Your task to perform on an android device: show emergency info Image 0: 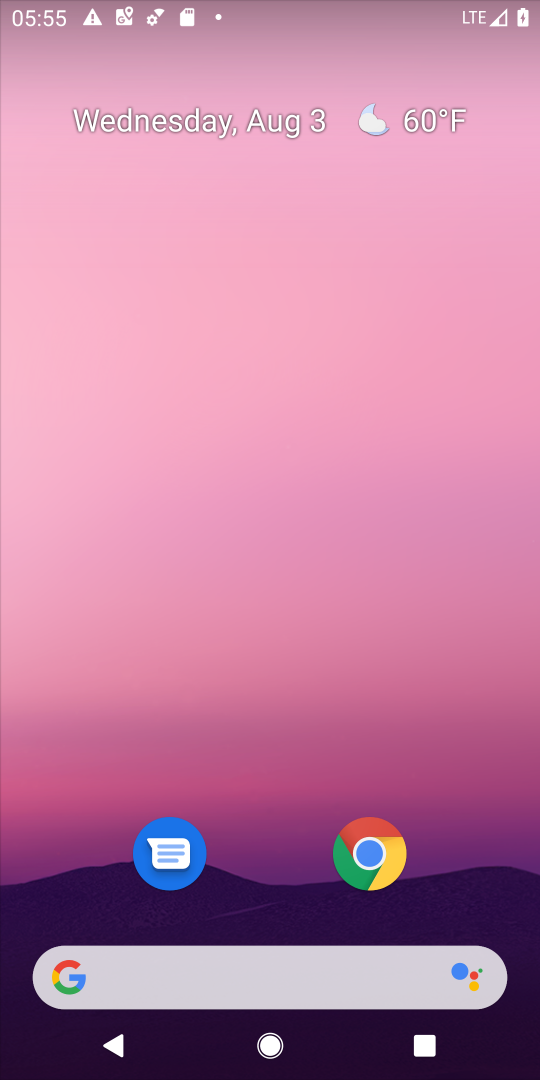
Step 0: drag from (334, 476) to (386, 25)
Your task to perform on an android device: show emergency info Image 1: 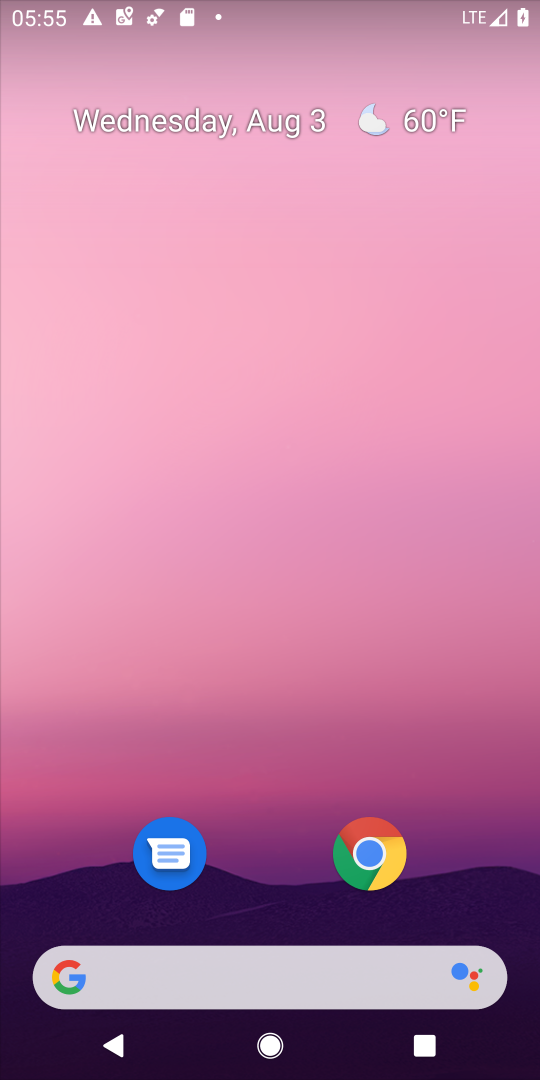
Step 1: drag from (249, 927) to (254, 29)
Your task to perform on an android device: show emergency info Image 2: 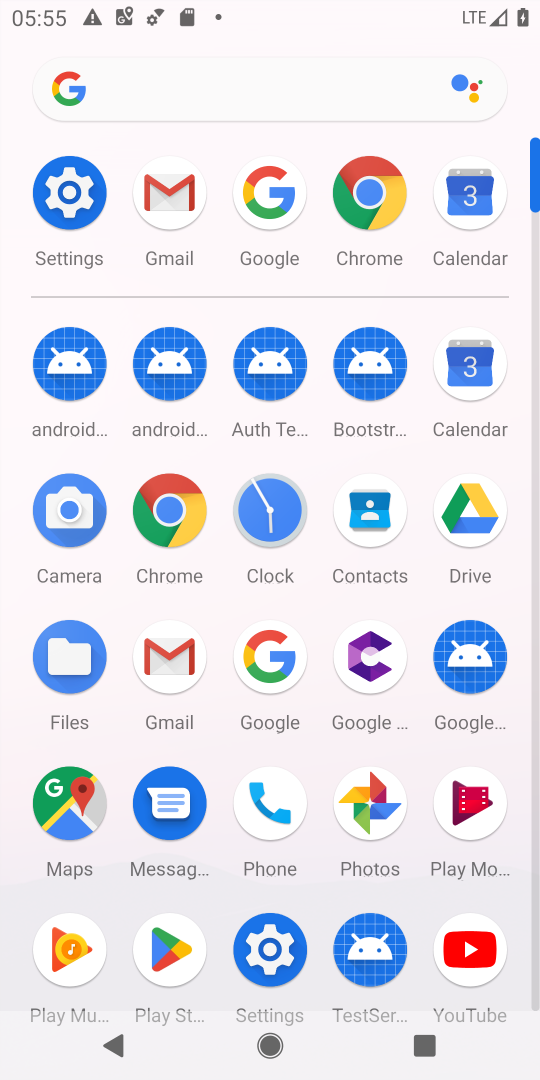
Step 2: click (76, 183)
Your task to perform on an android device: show emergency info Image 3: 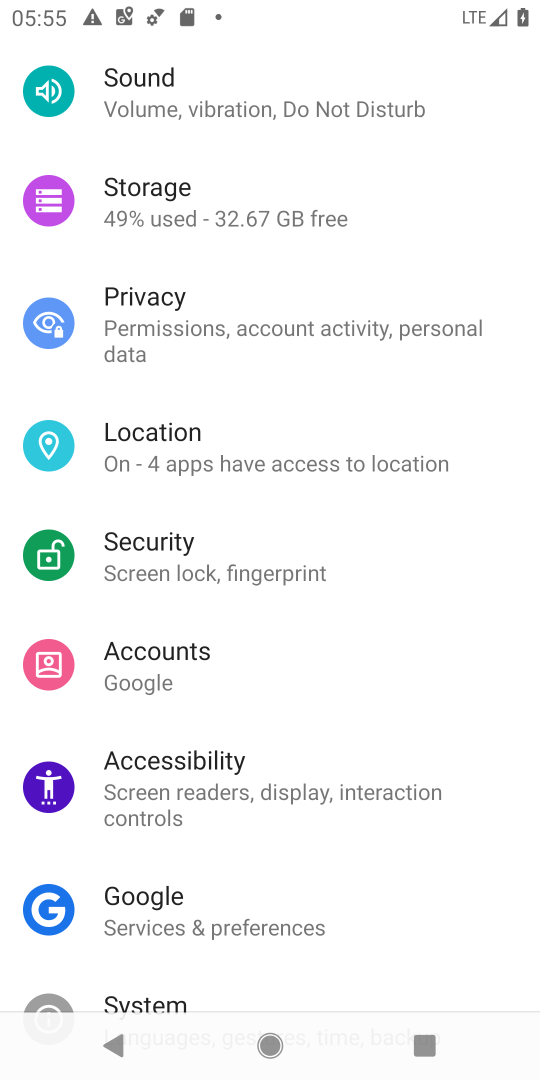
Step 3: drag from (136, 965) to (160, 508)
Your task to perform on an android device: show emergency info Image 4: 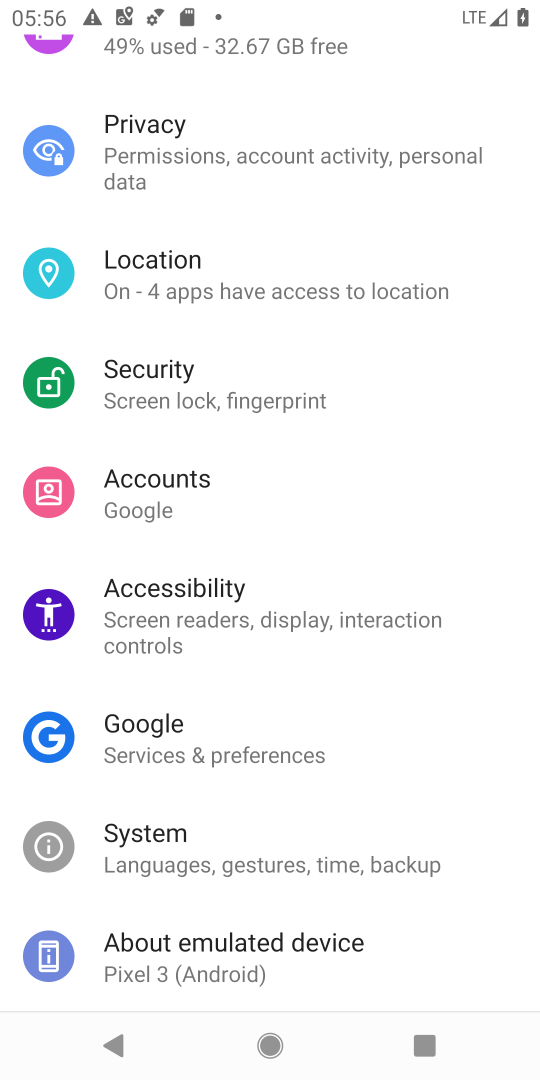
Step 4: drag from (261, 958) to (253, 568)
Your task to perform on an android device: show emergency info Image 5: 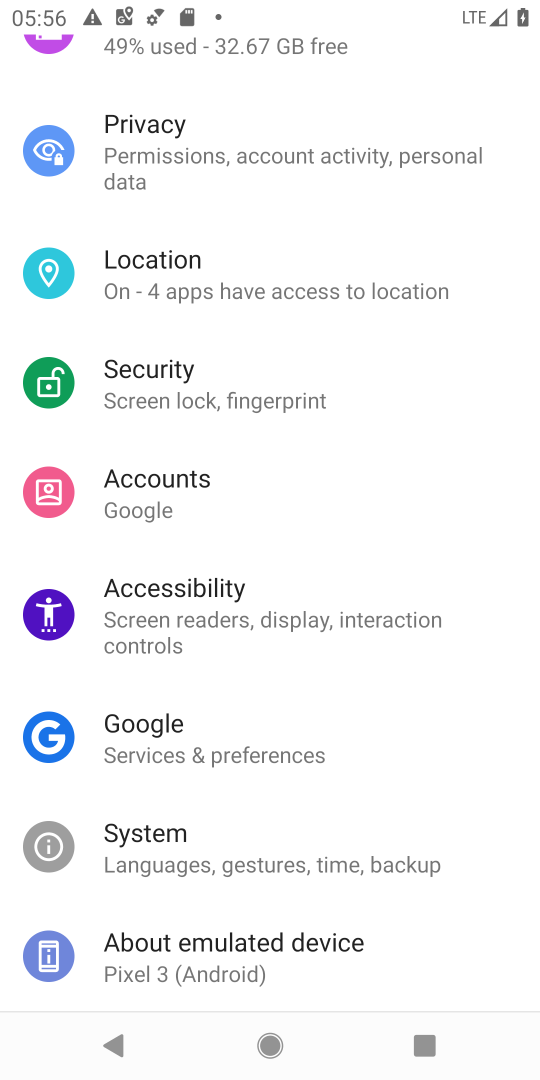
Step 5: click (186, 954)
Your task to perform on an android device: show emergency info Image 6: 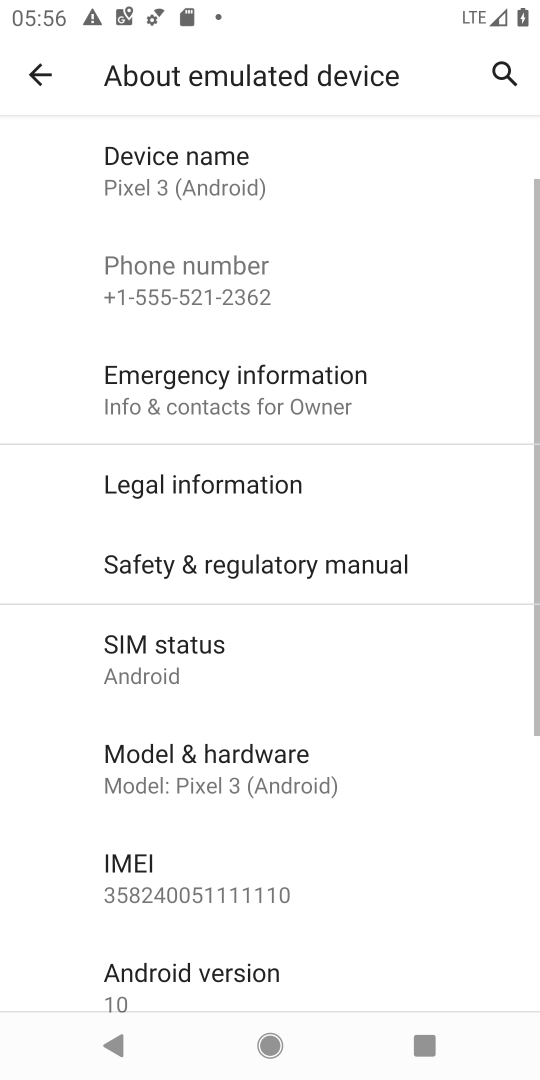
Step 6: task complete